Your task to perform on an android device: Add macbook air to the cart on costco, then select checkout. Image 0: 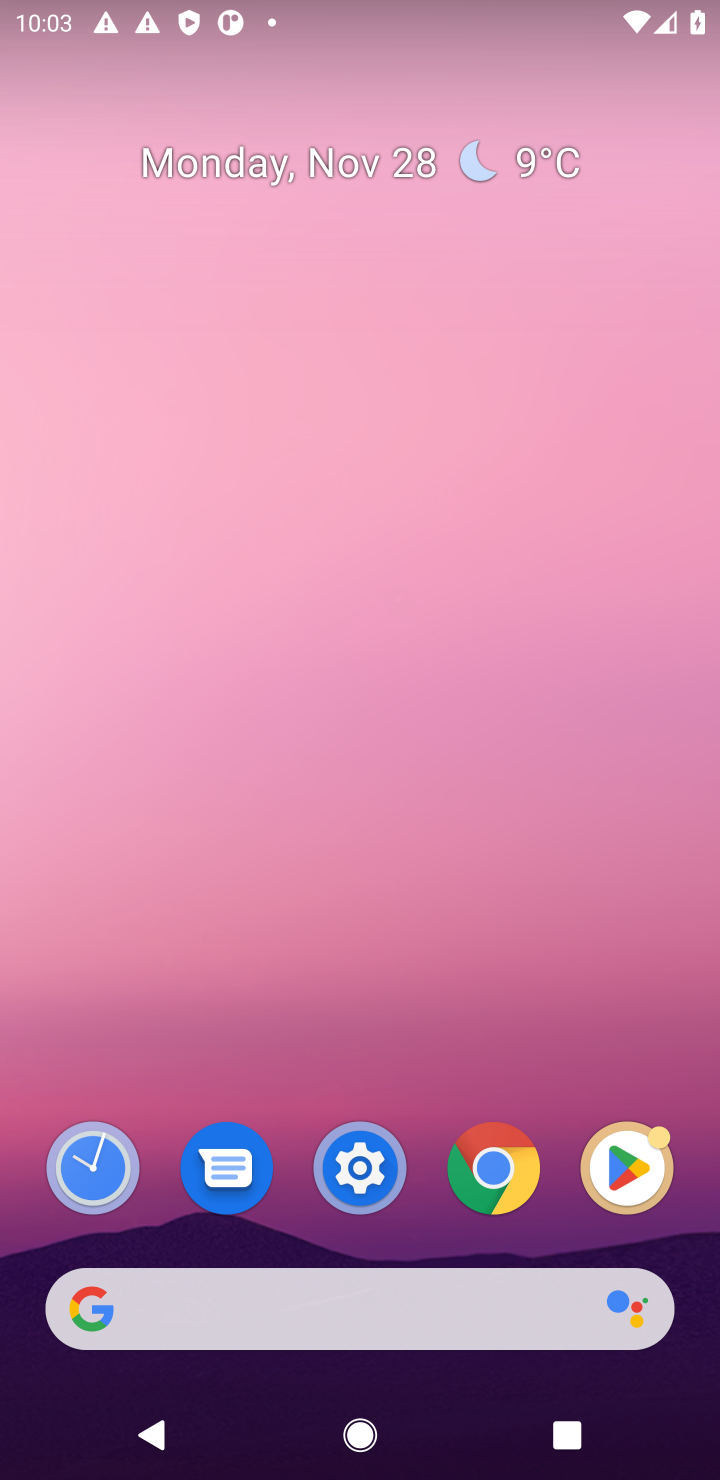
Step 0: click (256, 1303)
Your task to perform on an android device: Add macbook air to the cart on costco, then select checkout. Image 1: 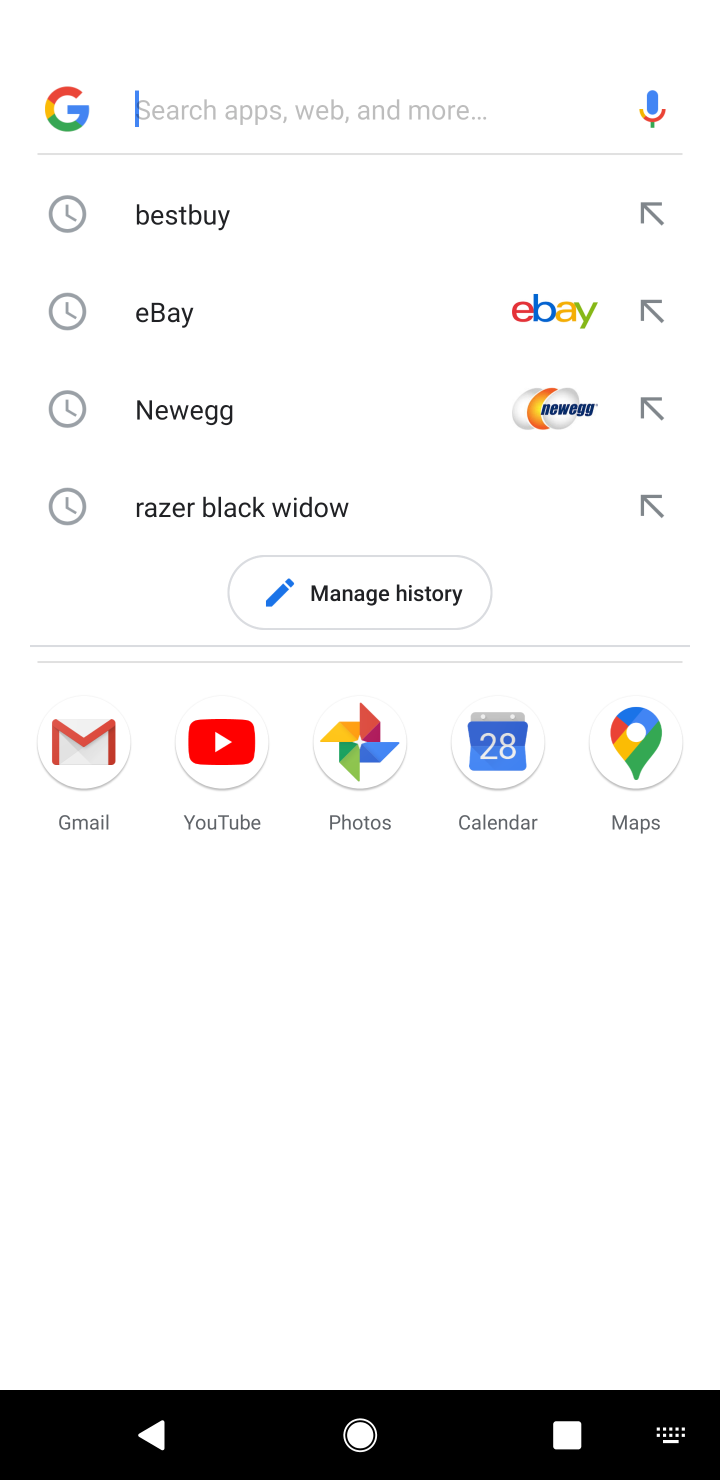
Step 1: type "costco.com"
Your task to perform on an android device: Add macbook air to the cart on costco, then select checkout. Image 2: 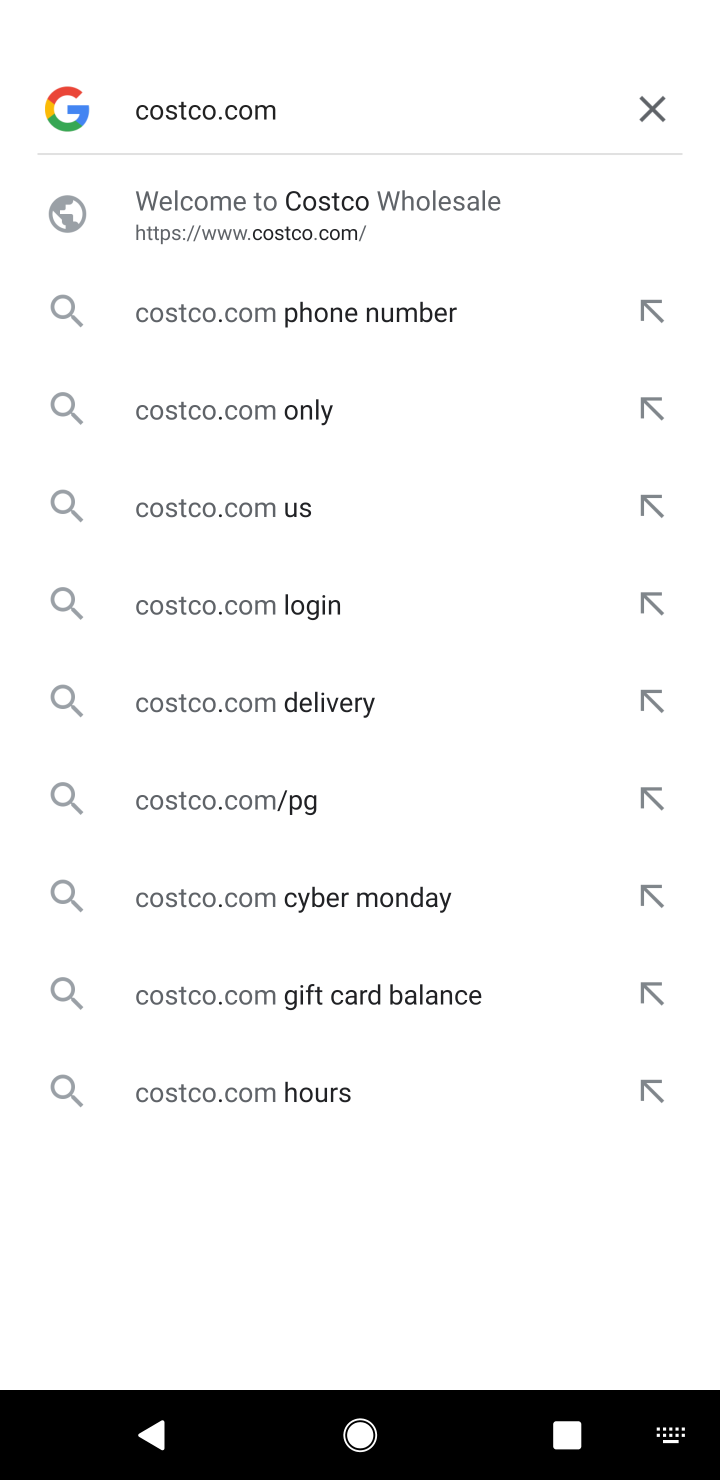
Step 2: click (202, 237)
Your task to perform on an android device: Add macbook air to the cart on costco, then select checkout. Image 3: 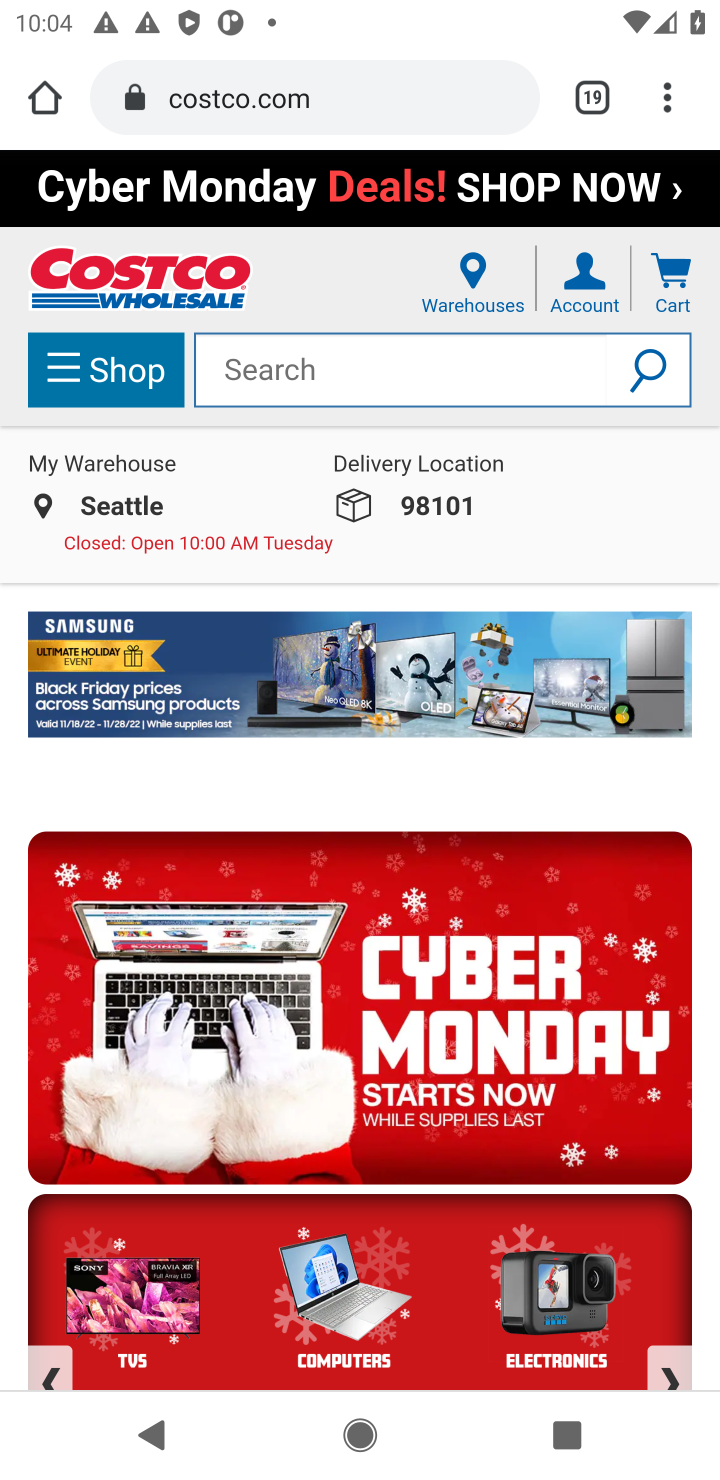
Step 3: task complete